Your task to perform on an android device: set default search engine in the chrome app Image 0: 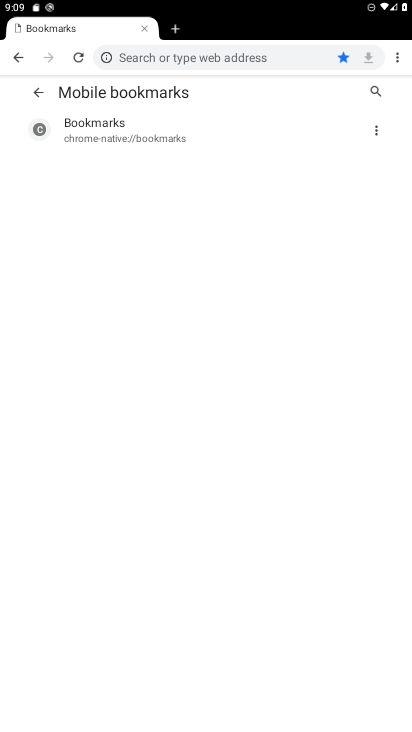
Step 0: press home button
Your task to perform on an android device: set default search engine in the chrome app Image 1: 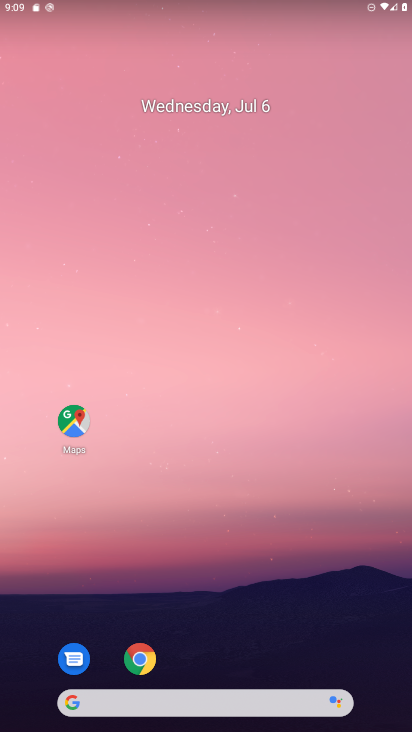
Step 1: drag from (345, 633) to (335, 228)
Your task to perform on an android device: set default search engine in the chrome app Image 2: 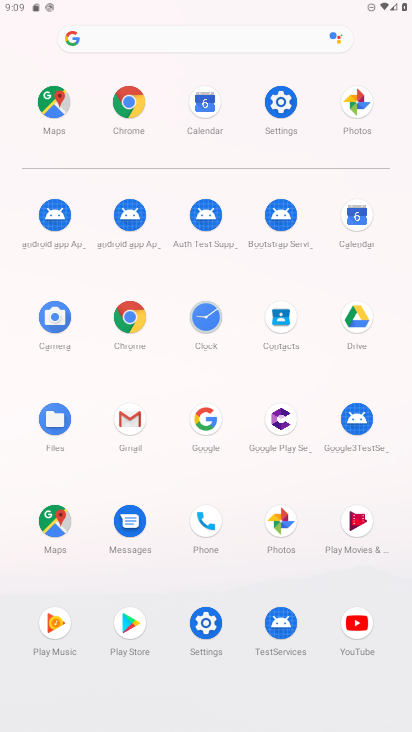
Step 2: click (135, 322)
Your task to perform on an android device: set default search engine in the chrome app Image 3: 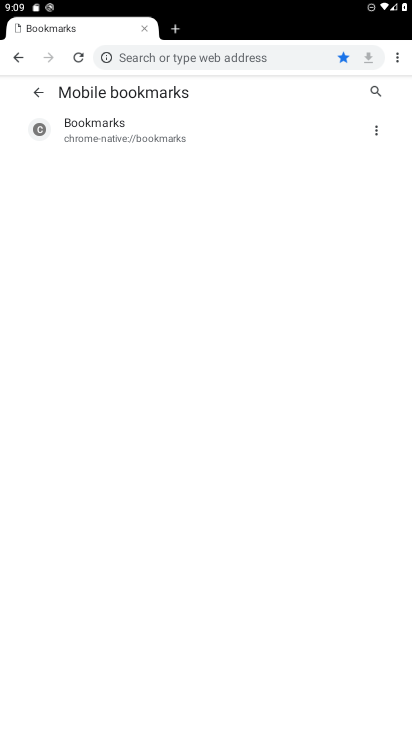
Step 3: click (399, 57)
Your task to perform on an android device: set default search engine in the chrome app Image 4: 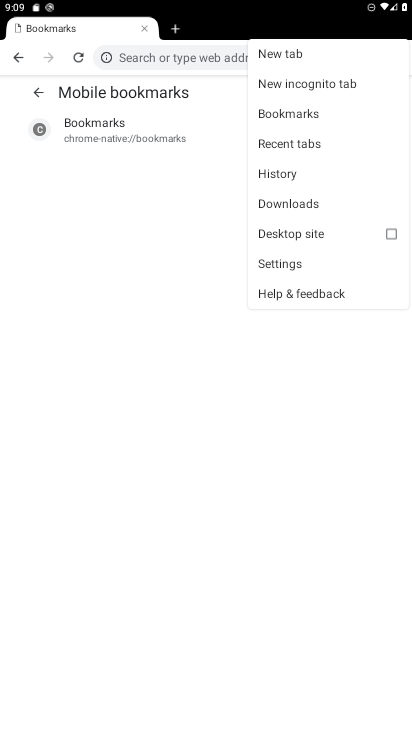
Step 4: click (299, 260)
Your task to perform on an android device: set default search engine in the chrome app Image 5: 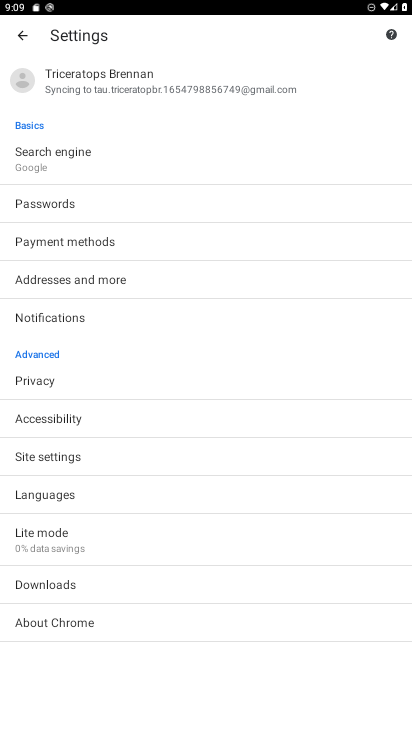
Step 5: click (172, 172)
Your task to perform on an android device: set default search engine in the chrome app Image 6: 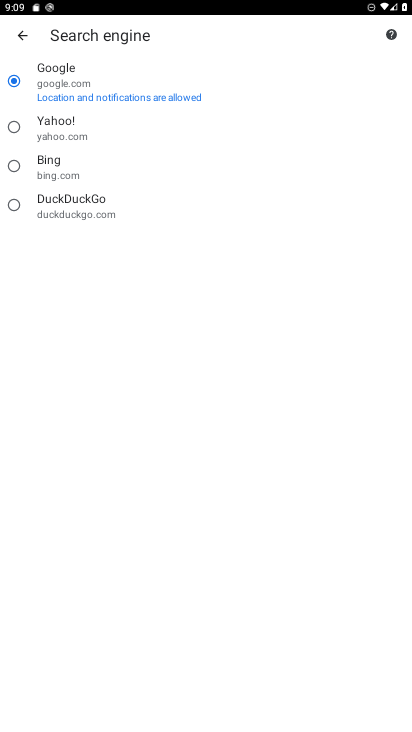
Step 6: click (59, 167)
Your task to perform on an android device: set default search engine in the chrome app Image 7: 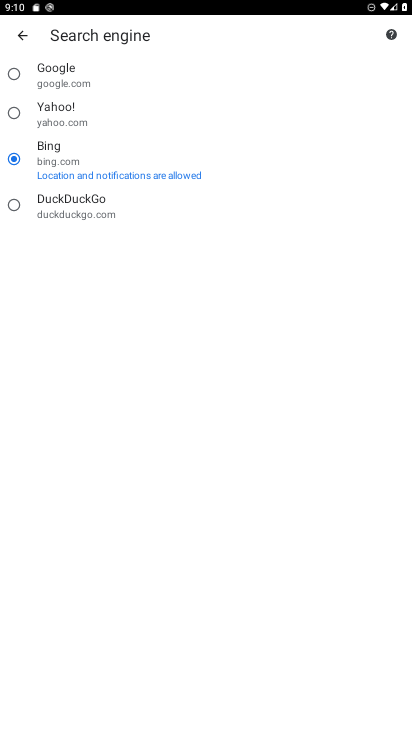
Step 7: task complete